Your task to perform on an android device: add a contact Image 0: 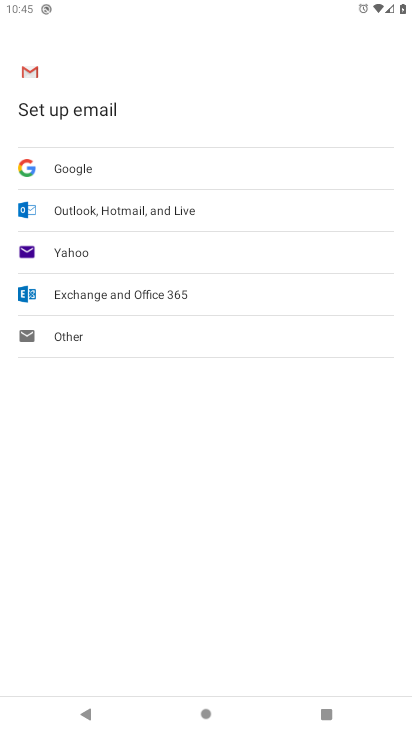
Step 0: press home button
Your task to perform on an android device: add a contact Image 1: 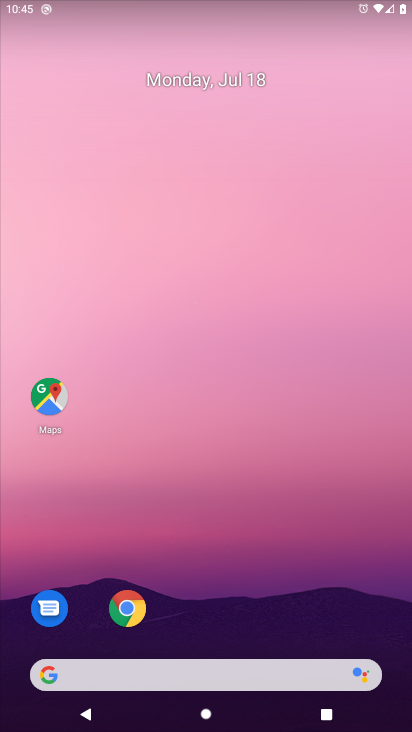
Step 1: drag from (19, 701) to (153, 306)
Your task to perform on an android device: add a contact Image 2: 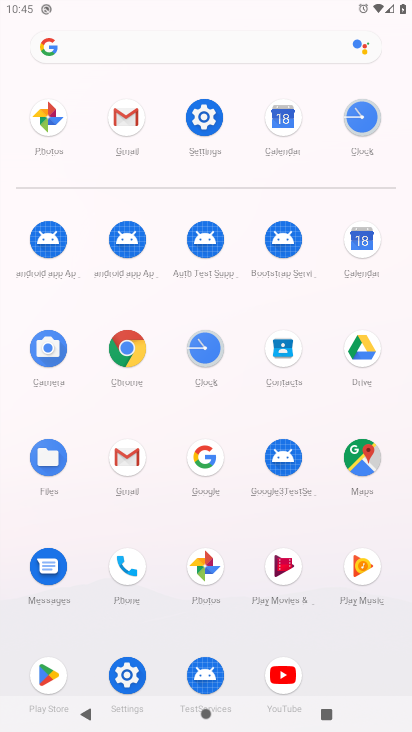
Step 2: click (271, 352)
Your task to perform on an android device: add a contact Image 3: 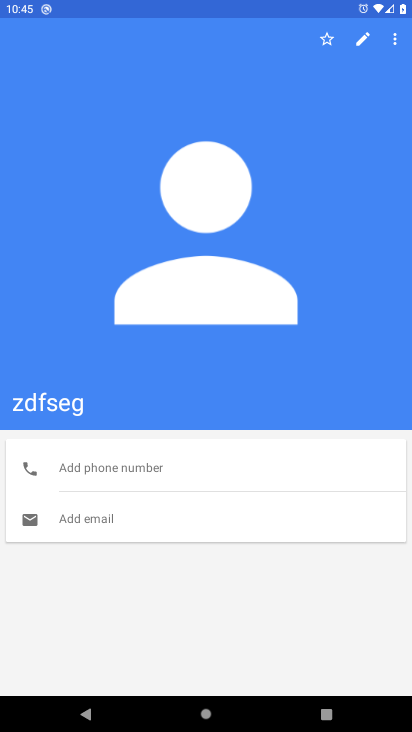
Step 3: click (95, 725)
Your task to perform on an android device: add a contact Image 4: 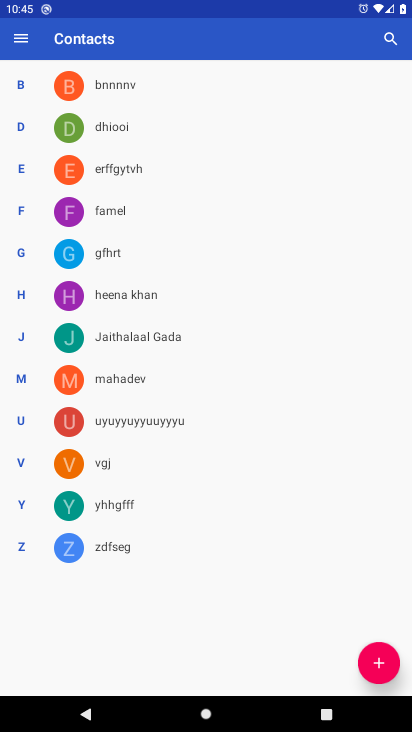
Step 4: click (375, 653)
Your task to perform on an android device: add a contact Image 5: 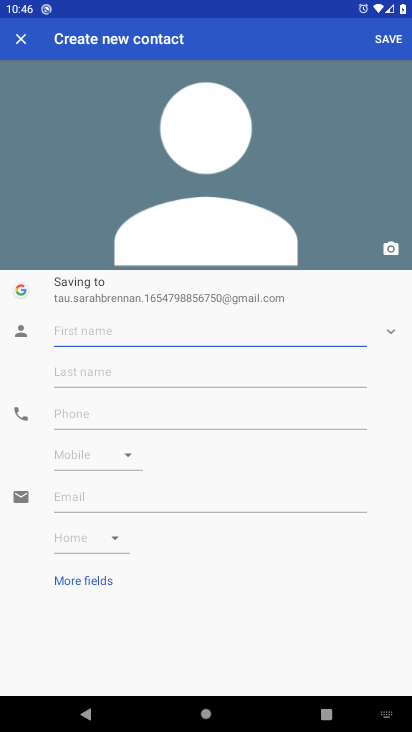
Step 5: type "sdgrdj"
Your task to perform on an android device: add a contact Image 6: 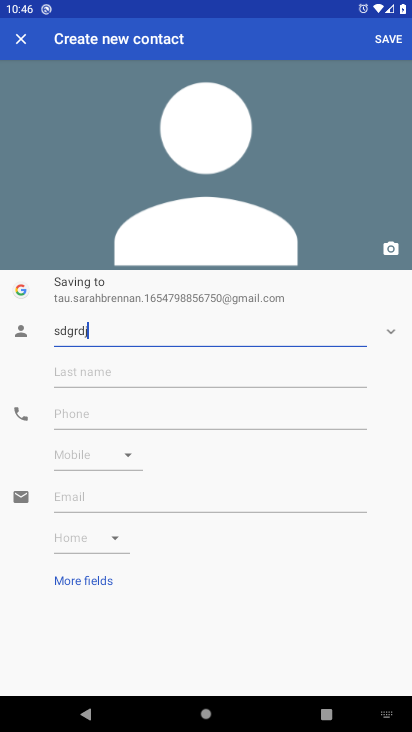
Step 6: type ""
Your task to perform on an android device: add a contact Image 7: 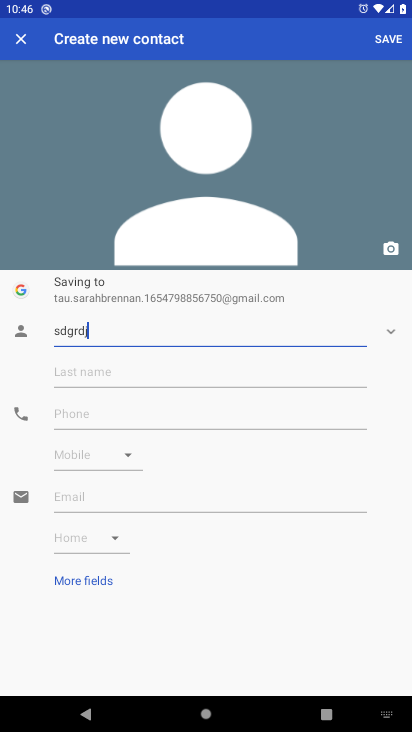
Step 7: click (384, 33)
Your task to perform on an android device: add a contact Image 8: 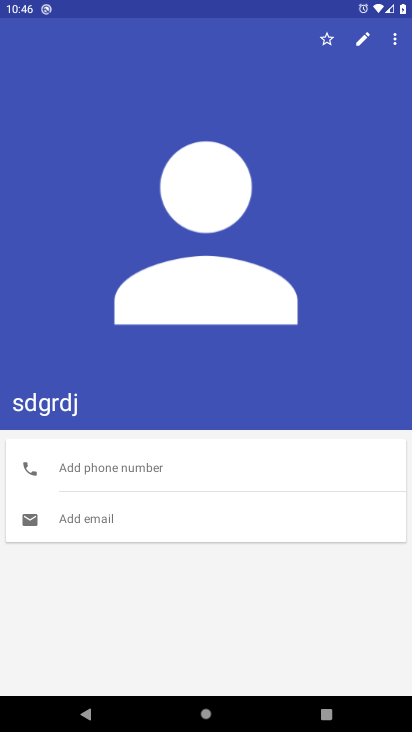
Step 8: task complete